Your task to perform on an android device: Toggle the flashlight Image 0: 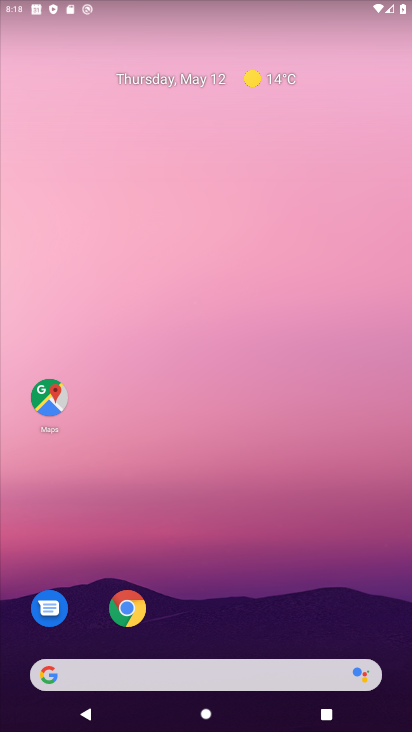
Step 0: drag from (162, 6) to (133, 383)
Your task to perform on an android device: Toggle the flashlight Image 1: 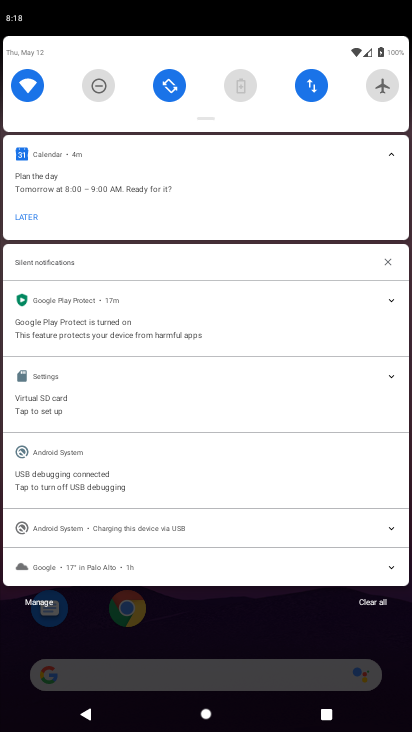
Step 1: drag from (168, 81) to (216, 407)
Your task to perform on an android device: Toggle the flashlight Image 2: 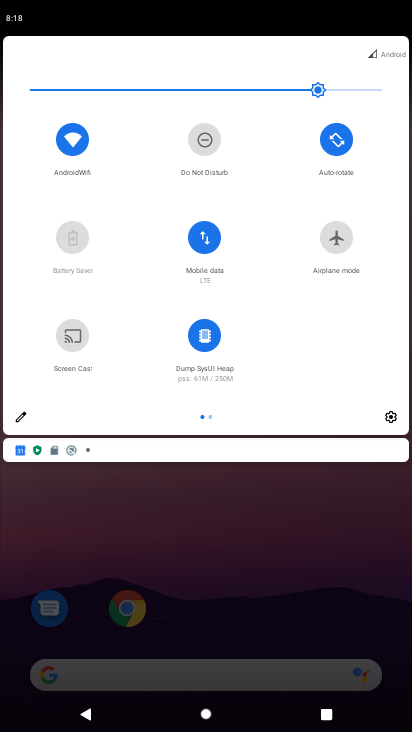
Step 2: drag from (364, 223) to (1, 412)
Your task to perform on an android device: Toggle the flashlight Image 3: 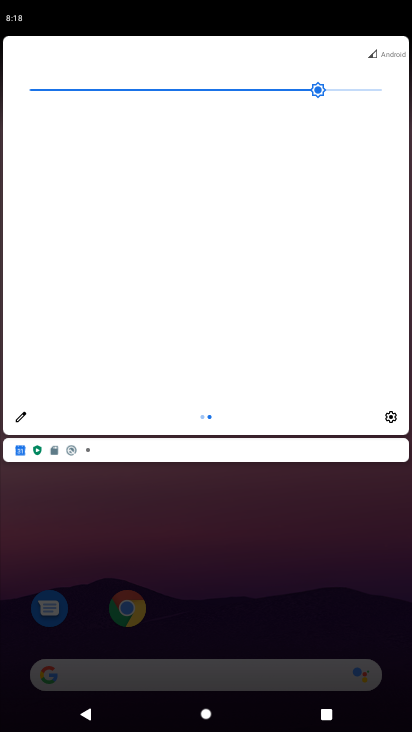
Step 3: click (23, 416)
Your task to perform on an android device: Toggle the flashlight Image 4: 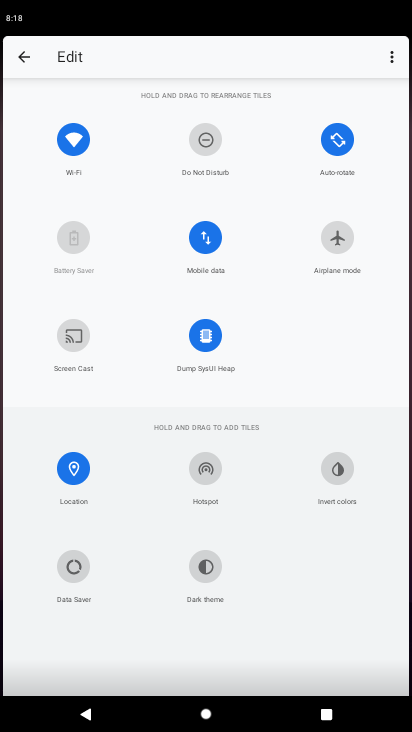
Step 4: task complete